Your task to perform on an android device: turn on improve location accuracy Image 0: 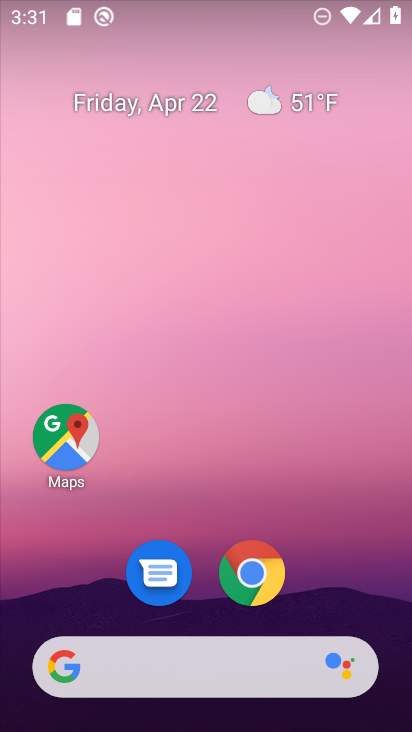
Step 0: drag from (325, 579) to (309, 55)
Your task to perform on an android device: turn on improve location accuracy Image 1: 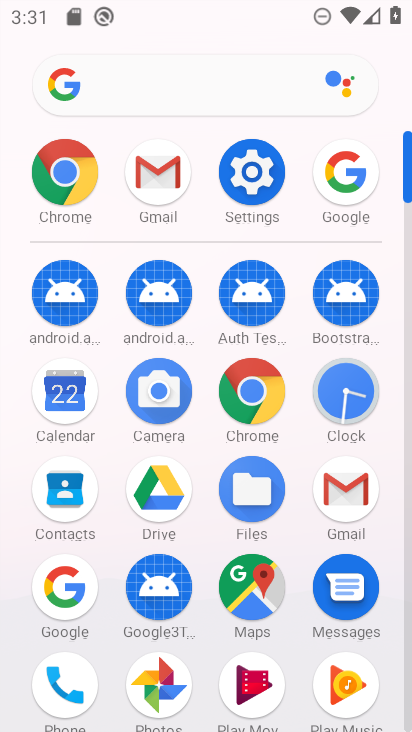
Step 1: click (234, 172)
Your task to perform on an android device: turn on improve location accuracy Image 2: 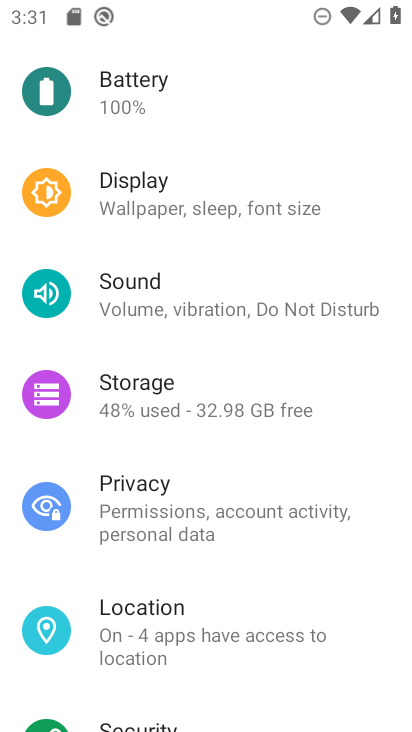
Step 2: drag from (238, 635) to (260, 247)
Your task to perform on an android device: turn on improve location accuracy Image 3: 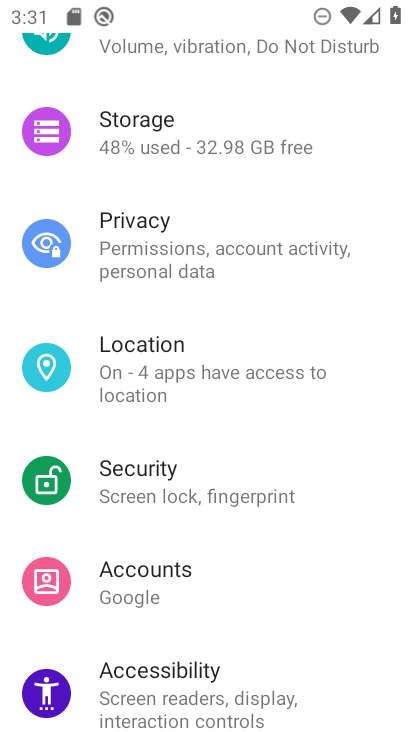
Step 3: click (213, 333)
Your task to perform on an android device: turn on improve location accuracy Image 4: 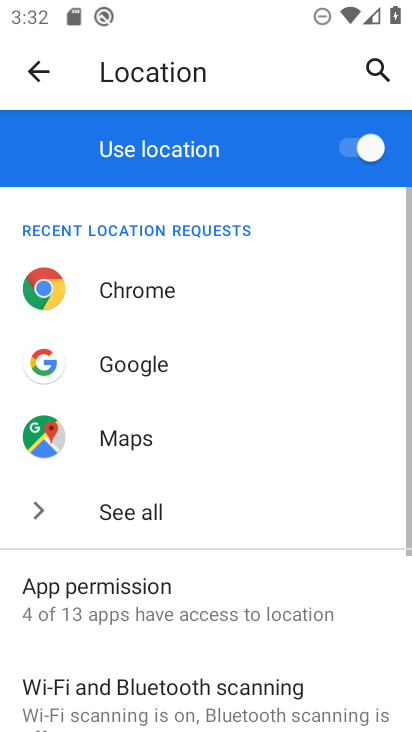
Step 4: drag from (236, 632) to (215, 121)
Your task to perform on an android device: turn on improve location accuracy Image 5: 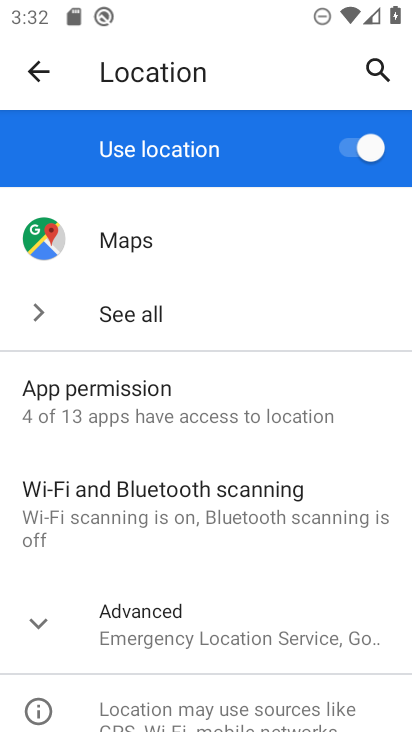
Step 5: click (244, 622)
Your task to perform on an android device: turn on improve location accuracy Image 6: 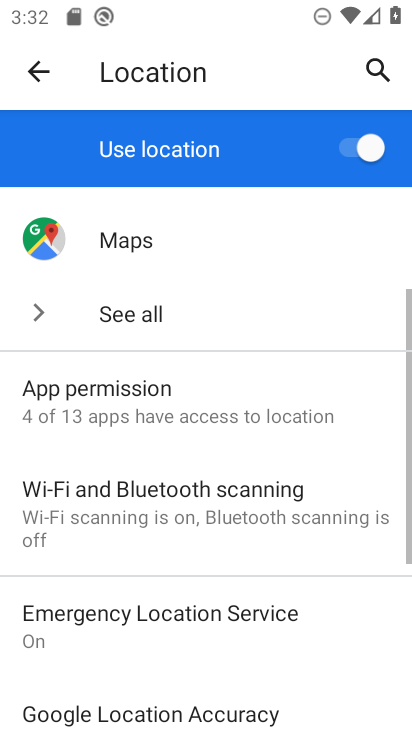
Step 6: drag from (245, 619) to (251, 224)
Your task to perform on an android device: turn on improve location accuracy Image 7: 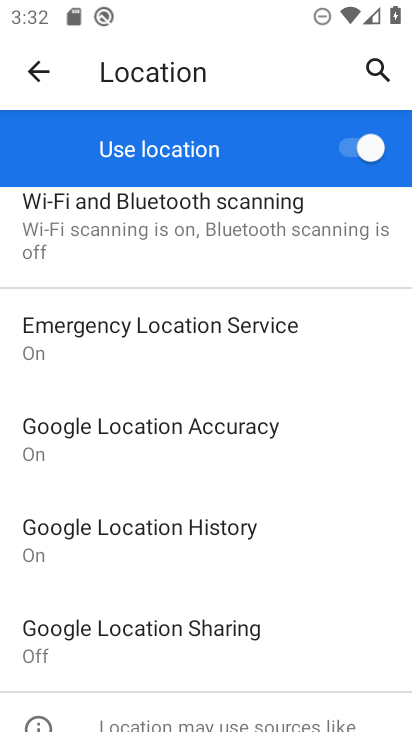
Step 7: click (219, 453)
Your task to perform on an android device: turn on improve location accuracy Image 8: 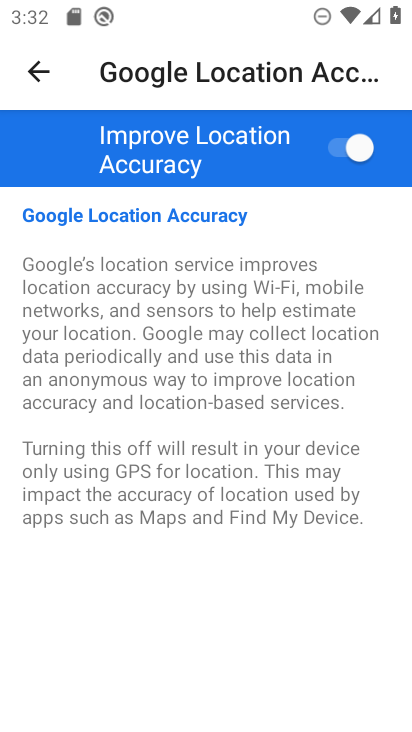
Step 8: task complete